Your task to perform on an android device: clear all cookies in the chrome app Image 0: 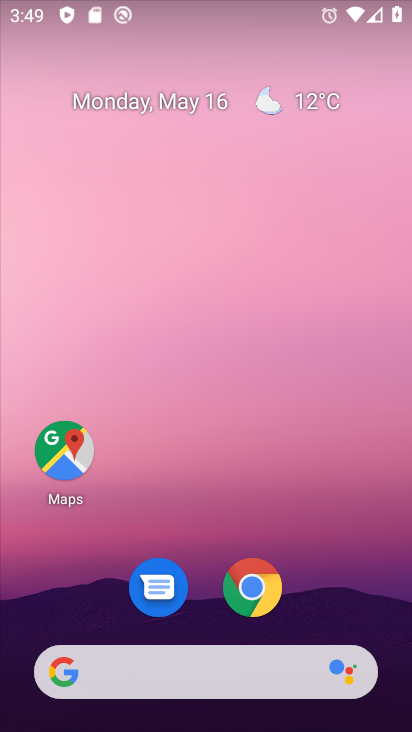
Step 0: click (252, 585)
Your task to perform on an android device: clear all cookies in the chrome app Image 1: 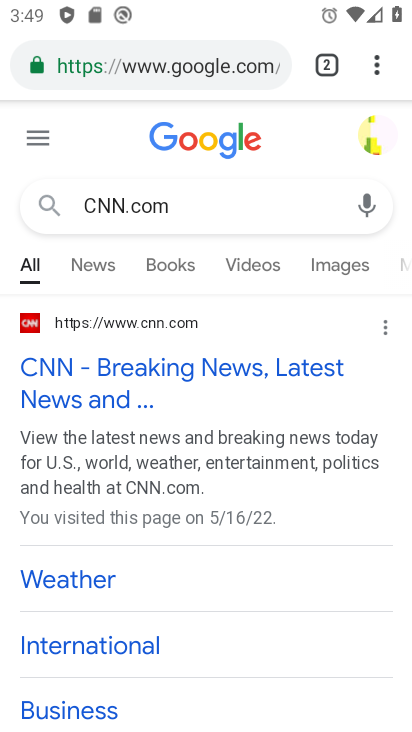
Step 1: click (368, 57)
Your task to perform on an android device: clear all cookies in the chrome app Image 2: 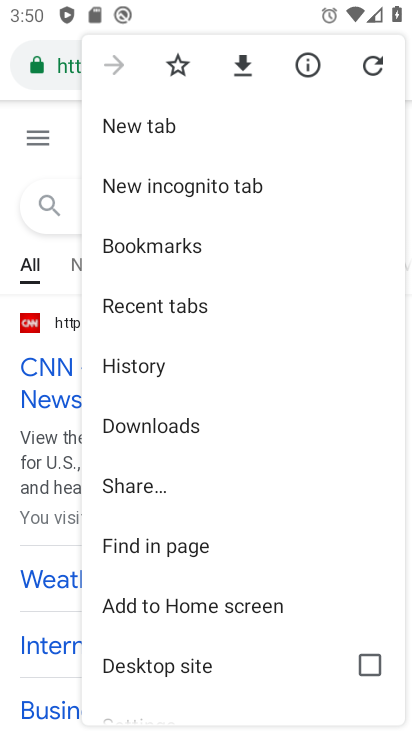
Step 2: click (302, 382)
Your task to perform on an android device: clear all cookies in the chrome app Image 3: 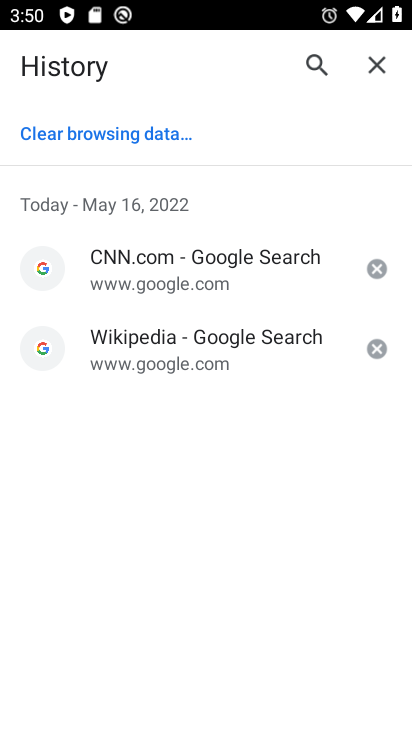
Step 3: click (125, 131)
Your task to perform on an android device: clear all cookies in the chrome app Image 4: 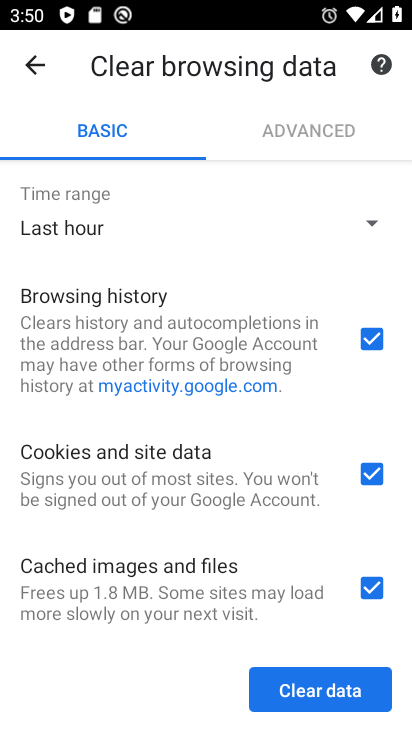
Step 4: click (317, 684)
Your task to perform on an android device: clear all cookies in the chrome app Image 5: 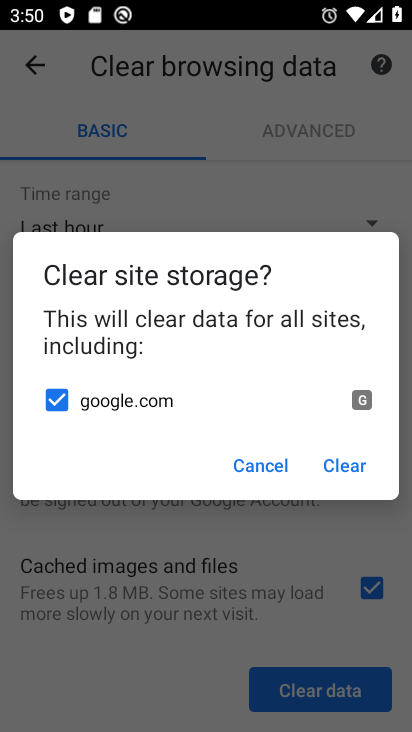
Step 5: click (345, 452)
Your task to perform on an android device: clear all cookies in the chrome app Image 6: 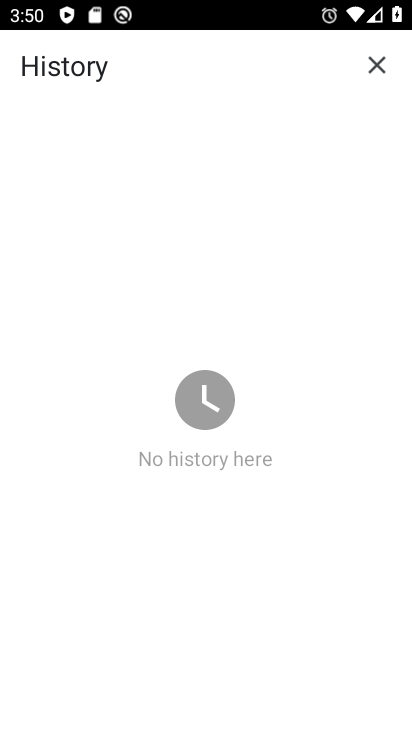
Step 6: task complete